Your task to perform on an android device: show emergency info Image 0: 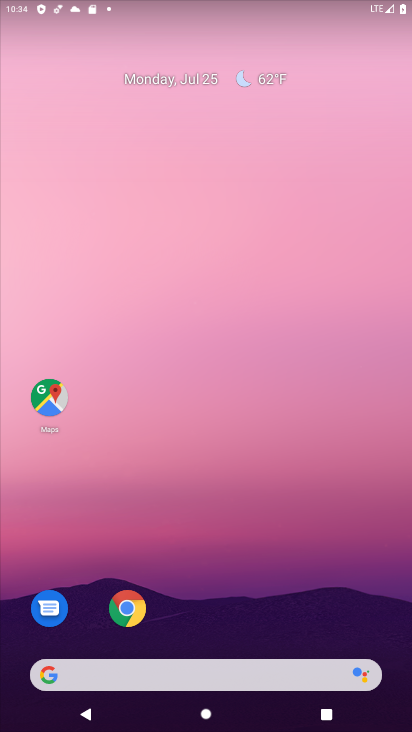
Step 0: drag from (250, 625) to (353, 43)
Your task to perform on an android device: show emergency info Image 1: 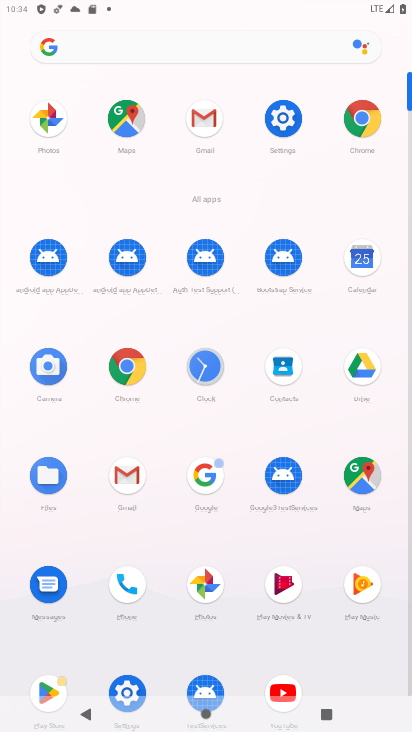
Step 1: click (123, 680)
Your task to perform on an android device: show emergency info Image 2: 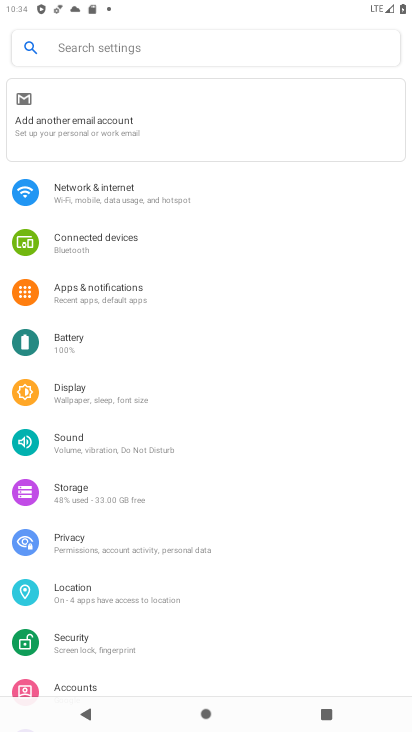
Step 2: drag from (137, 595) to (178, 87)
Your task to perform on an android device: show emergency info Image 3: 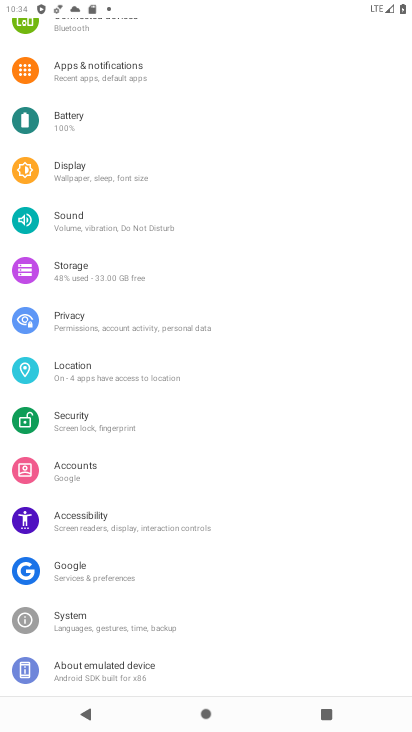
Step 3: click (101, 674)
Your task to perform on an android device: show emergency info Image 4: 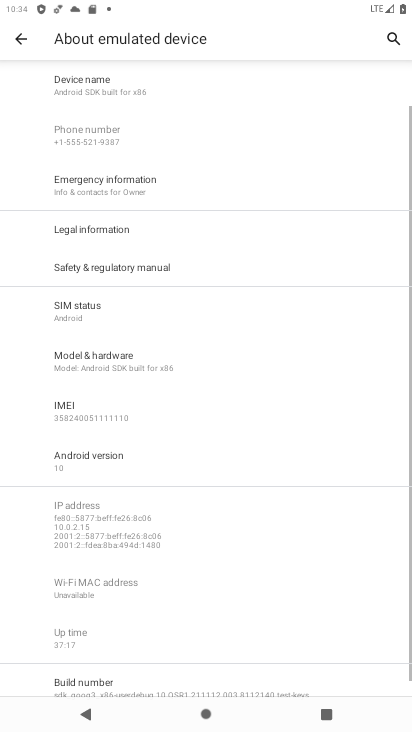
Step 4: click (113, 192)
Your task to perform on an android device: show emergency info Image 5: 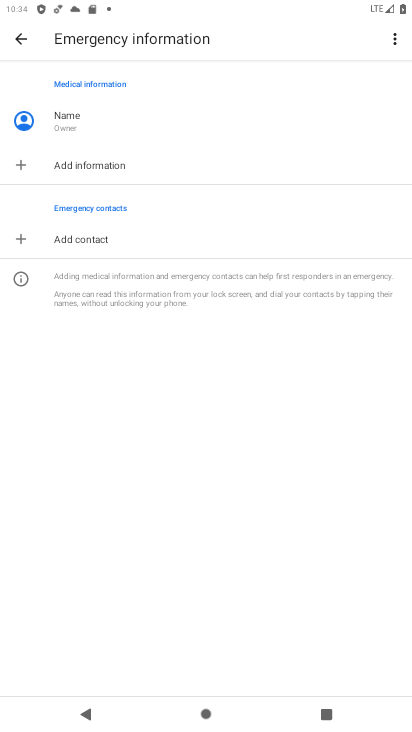
Step 5: task complete